Your task to perform on an android device: stop showing notifications on the lock screen Image 0: 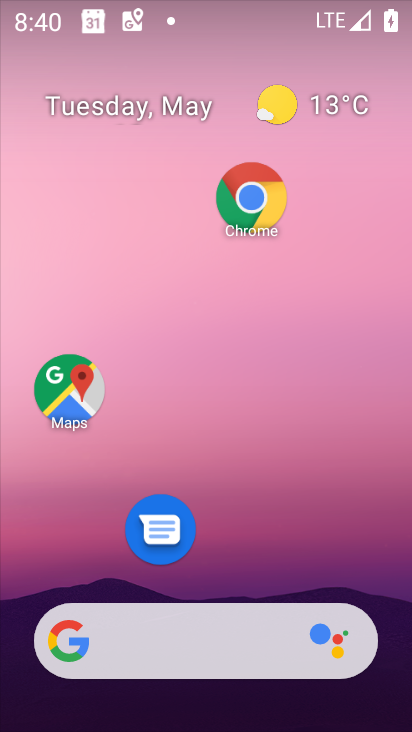
Step 0: drag from (316, 570) to (335, 2)
Your task to perform on an android device: stop showing notifications on the lock screen Image 1: 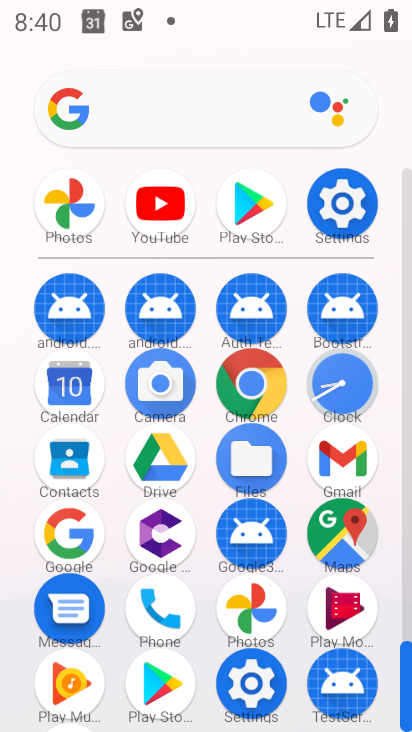
Step 1: click (254, 676)
Your task to perform on an android device: stop showing notifications on the lock screen Image 2: 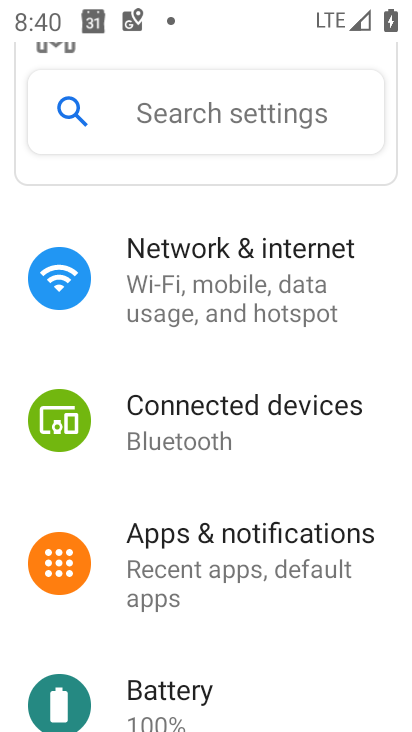
Step 2: click (253, 545)
Your task to perform on an android device: stop showing notifications on the lock screen Image 3: 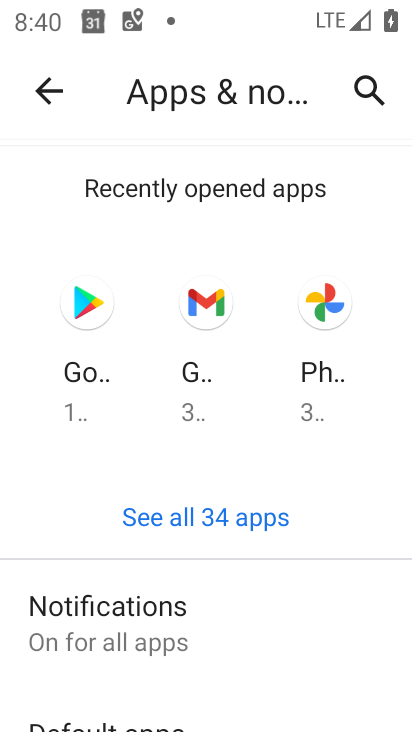
Step 3: drag from (209, 638) to (241, 83)
Your task to perform on an android device: stop showing notifications on the lock screen Image 4: 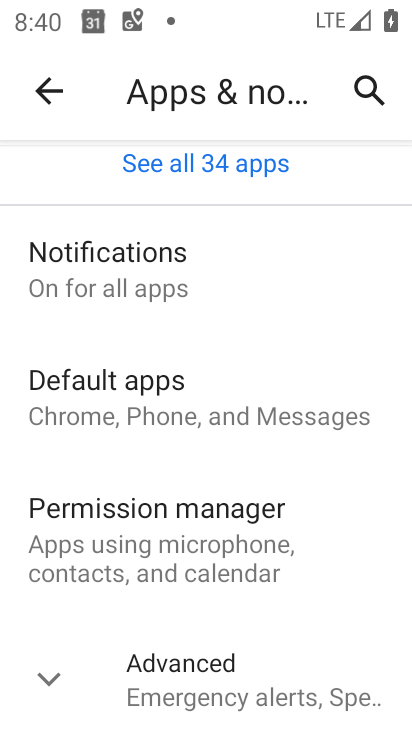
Step 4: click (144, 667)
Your task to perform on an android device: stop showing notifications on the lock screen Image 5: 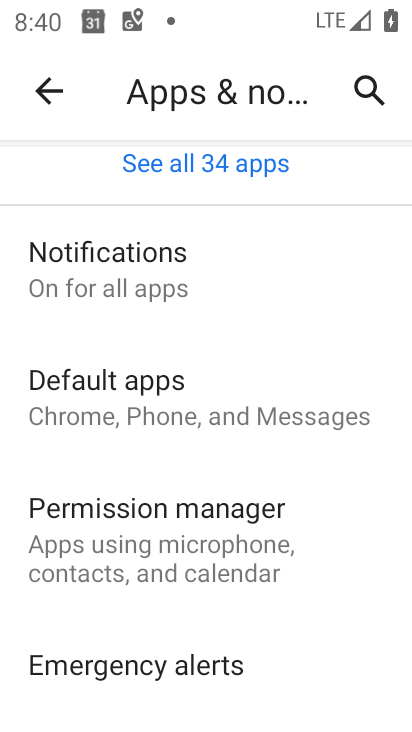
Step 5: click (176, 289)
Your task to perform on an android device: stop showing notifications on the lock screen Image 6: 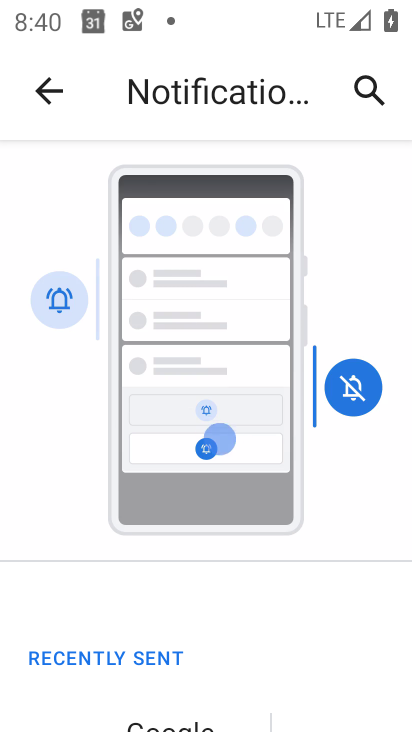
Step 6: drag from (187, 626) to (258, 122)
Your task to perform on an android device: stop showing notifications on the lock screen Image 7: 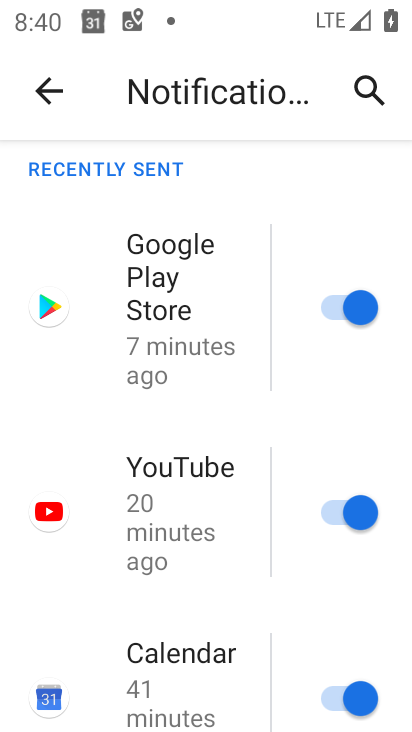
Step 7: click (217, 642)
Your task to perform on an android device: stop showing notifications on the lock screen Image 8: 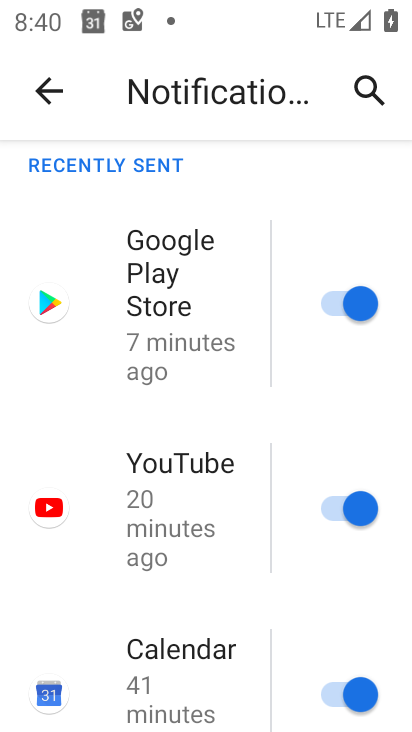
Step 8: drag from (208, 611) to (207, 551)
Your task to perform on an android device: stop showing notifications on the lock screen Image 9: 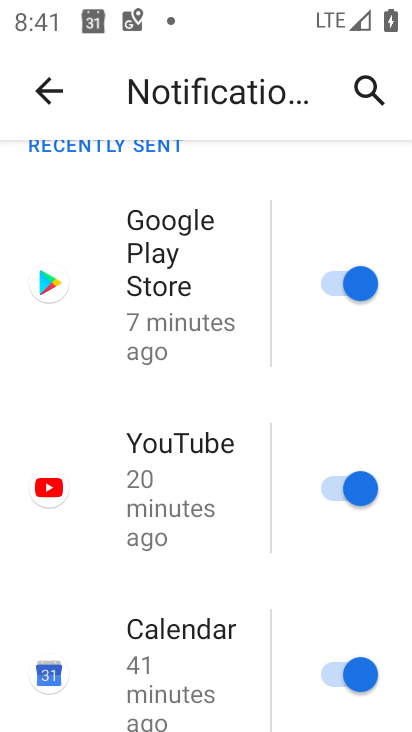
Step 9: drag from (193, 583) to (213, 179)
Your task to perform on an android device: stop showing notifications on the lock screen Image 10: 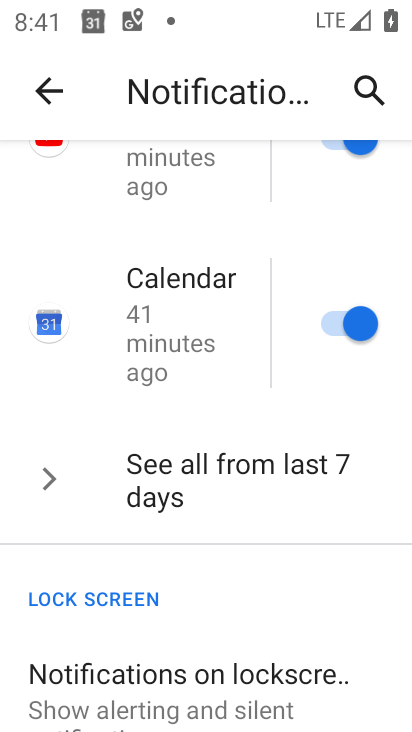
Step 10: drag from (156, 613) to (296, 140)
Your task to perform on an android device: stop showing notifications on the lock screen Image 11: 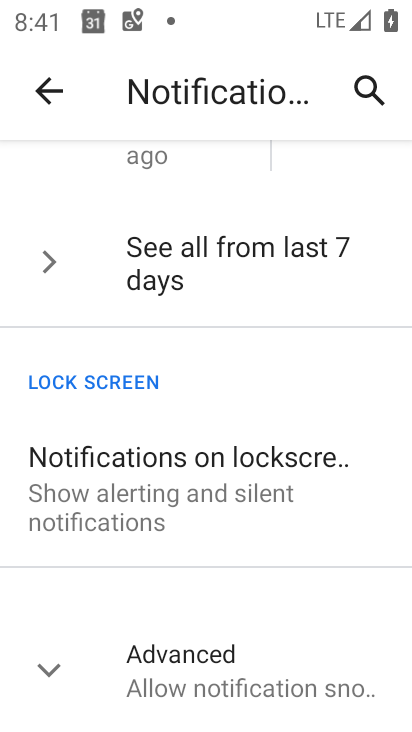
Step 11: click (181, 637)
Your task to perform on an android device: stop showing notifications on the lock screen Image 12: 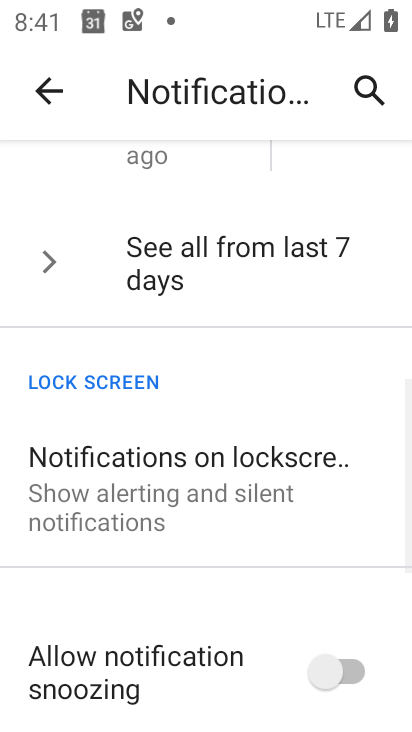
Step 12: drag from (240, 592) to (281, 148)
Your task to perform on an android device: stop showing notifications on the lock screen Image 13: 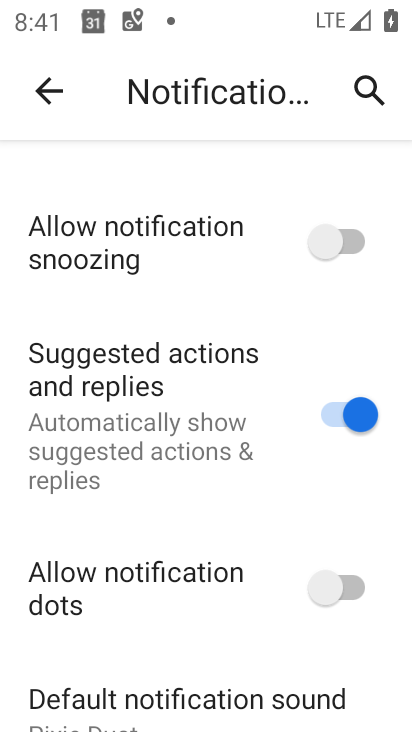
Step 13: drag from (208, 400) to (214, 649)
Your task to perform on an android device: stop showing notifications on the lock screen Image 14: 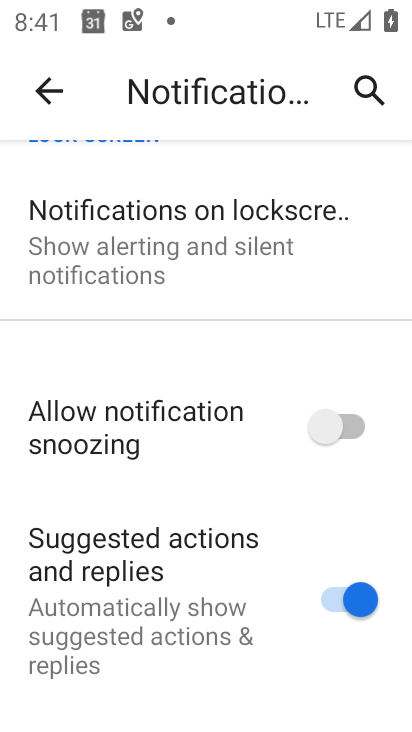
Step 14: click (197, 214)
Your task to perform on an android device: stop showing notifications on the lock screen Image 15: 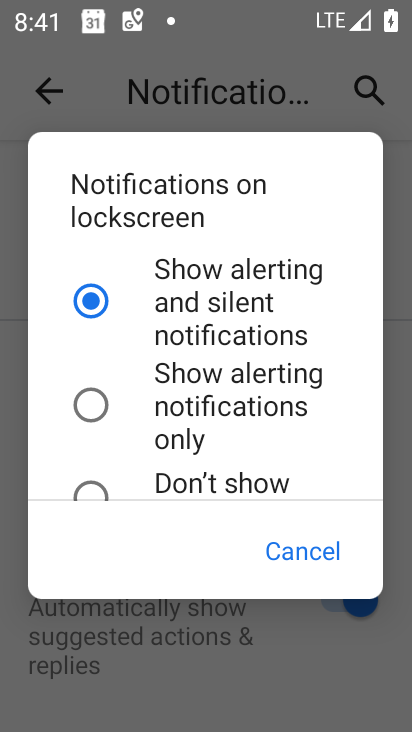
Step 15: click (196, 410)
Your task to perform on an android device: stop showing notifications on the lock screen Image 16: 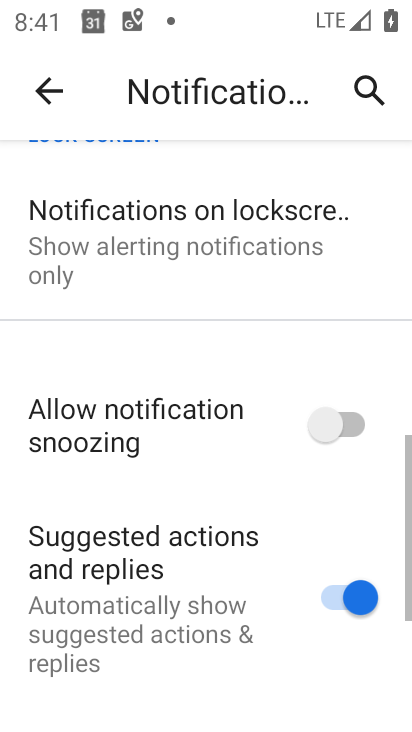
Step 16: task complete